Your task to perform on an android device: turn on bluetooth scan Image 0: 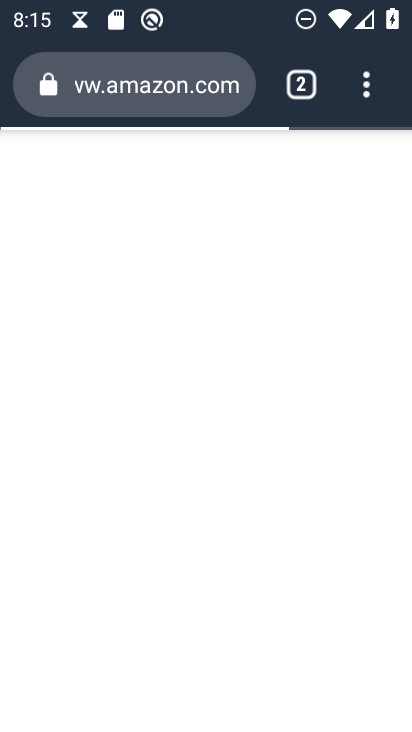
Step 0: press home button
Your task to perform on an android device: turn on bluetooth scan Image 1: 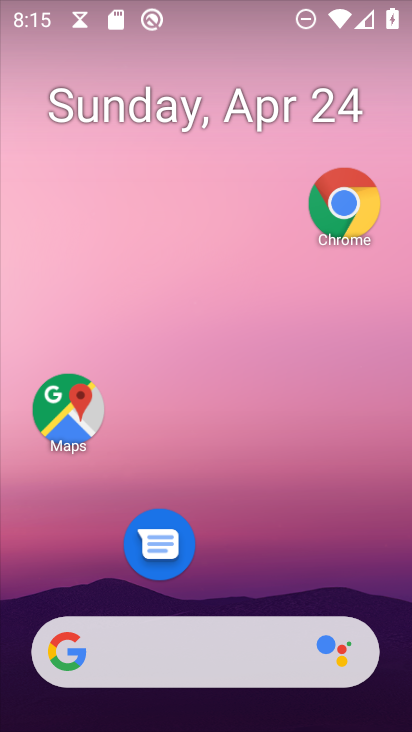
Step 1: drag from (148, 677) to (295, 67)
Your task to perform on an android device: turn on bluetooth scan Image 2: 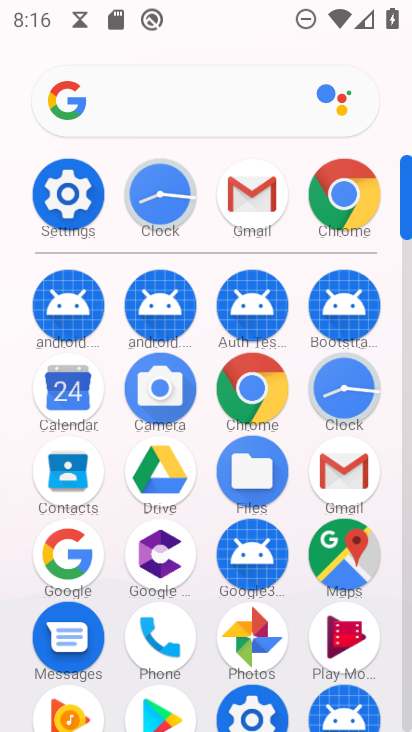
Step 2: click (66, 212)
Your task to perform on an android device: turn on bluetooth scan Image 3: 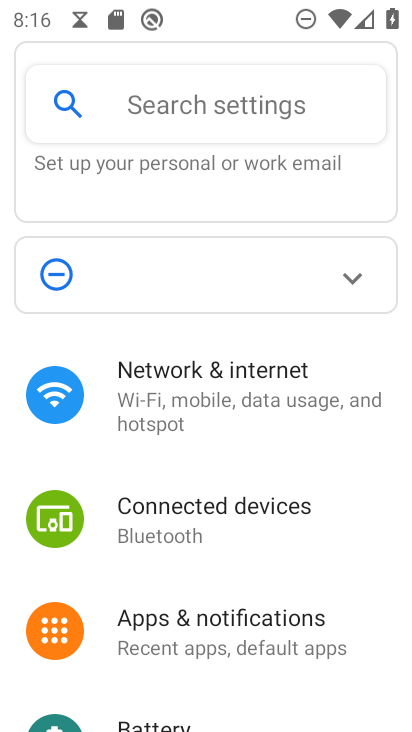
Step 3: drag from (208, 635) to (328, 110)
Your task to perform on an android device: turn on bluetooth scan Image 4: 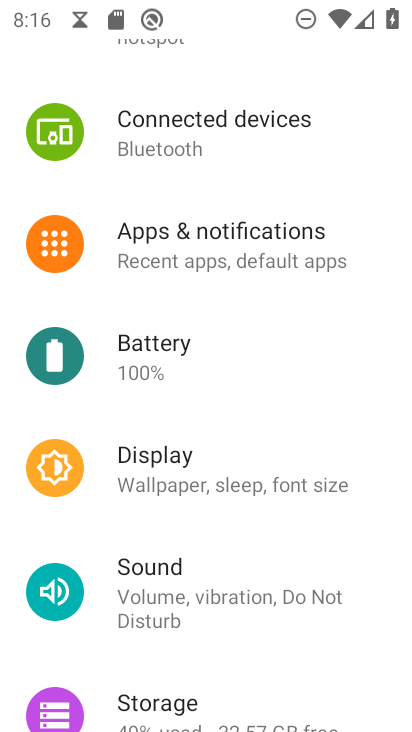
Step 4: drag from (230, 624) to (328, 25)
Your task to perform on an android device: turn on bluetooth scan Image 5: 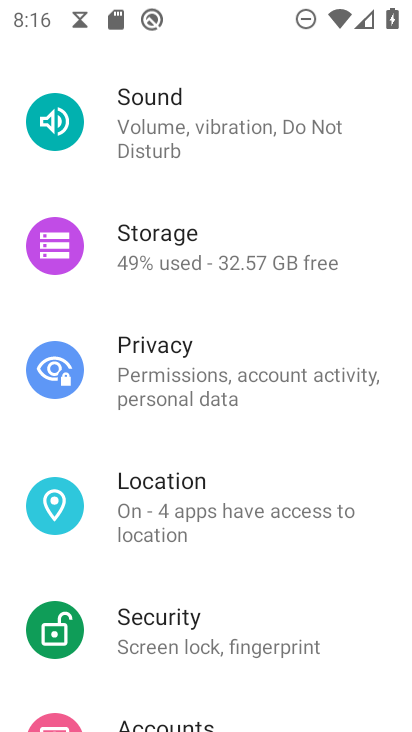
Step 5: click (158, 467)
Your task to perform on an android device: turn on bluetooth scan Image 6: 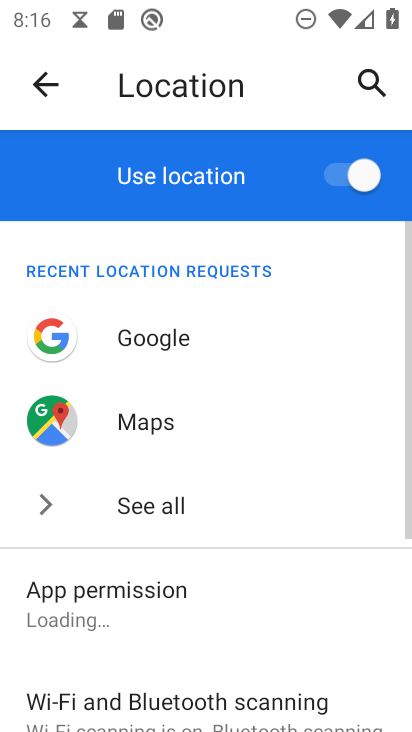
Step 6: drag from (158, 669) to (284, 78)
Your task to perform on an android device: turn on bluetooth scan Image 7: 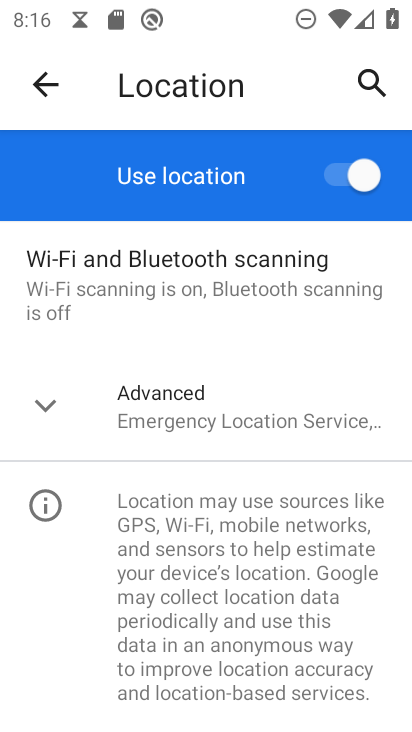
Step 7: click (170, 273)
Your task to perform on an android device: turn on bluetooth scan Image 8: 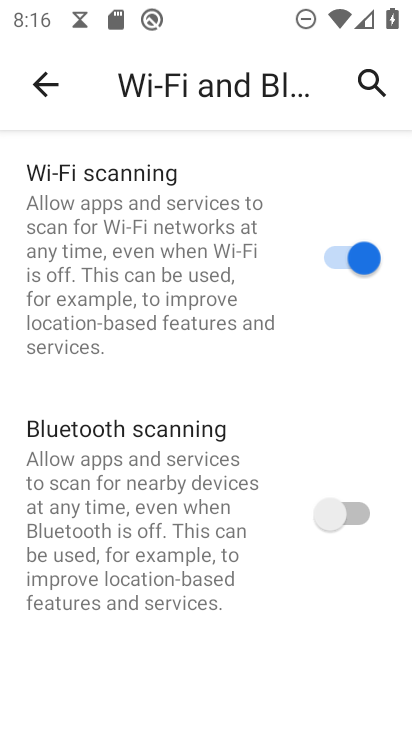
Step 8: click (352, 511)
Your task to perform on an android device: turn on bluetooth scan Image 9: 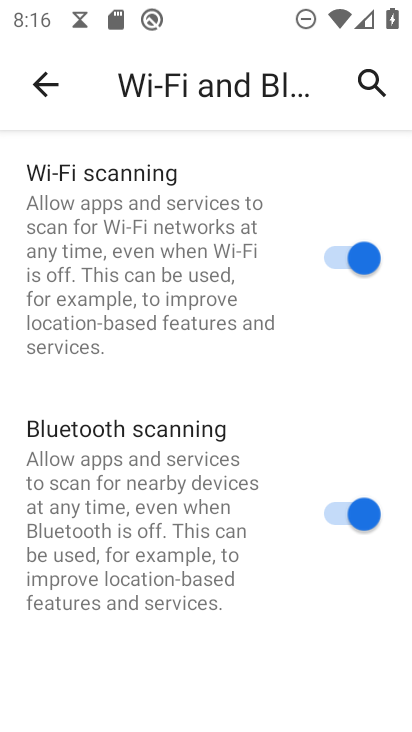
Step 9: task complete